Your task to perform on an android device: toggle notifications settings in the gmail app Image 0: 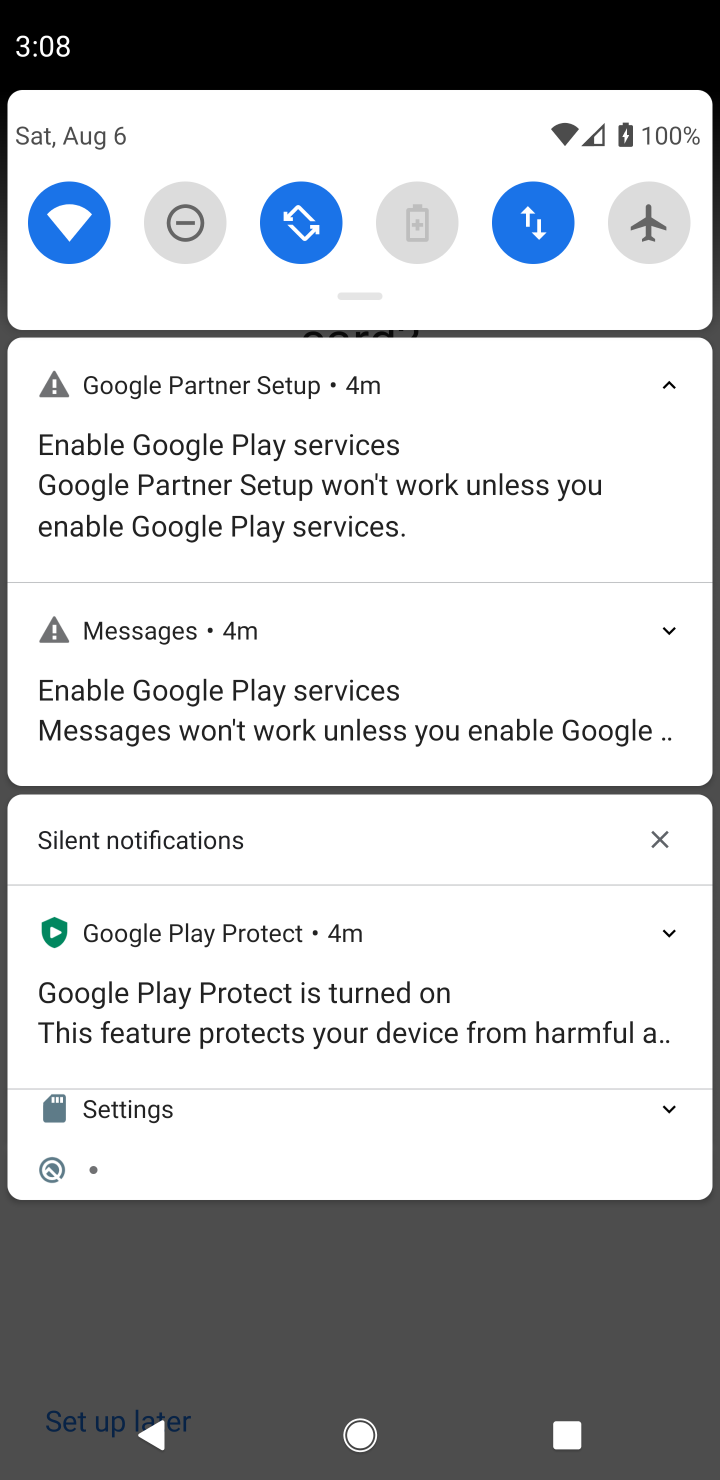
Step 0: click (547, 1353)
Your task to perform on an android device: toggle notifications settings in the gmail app Image 1: 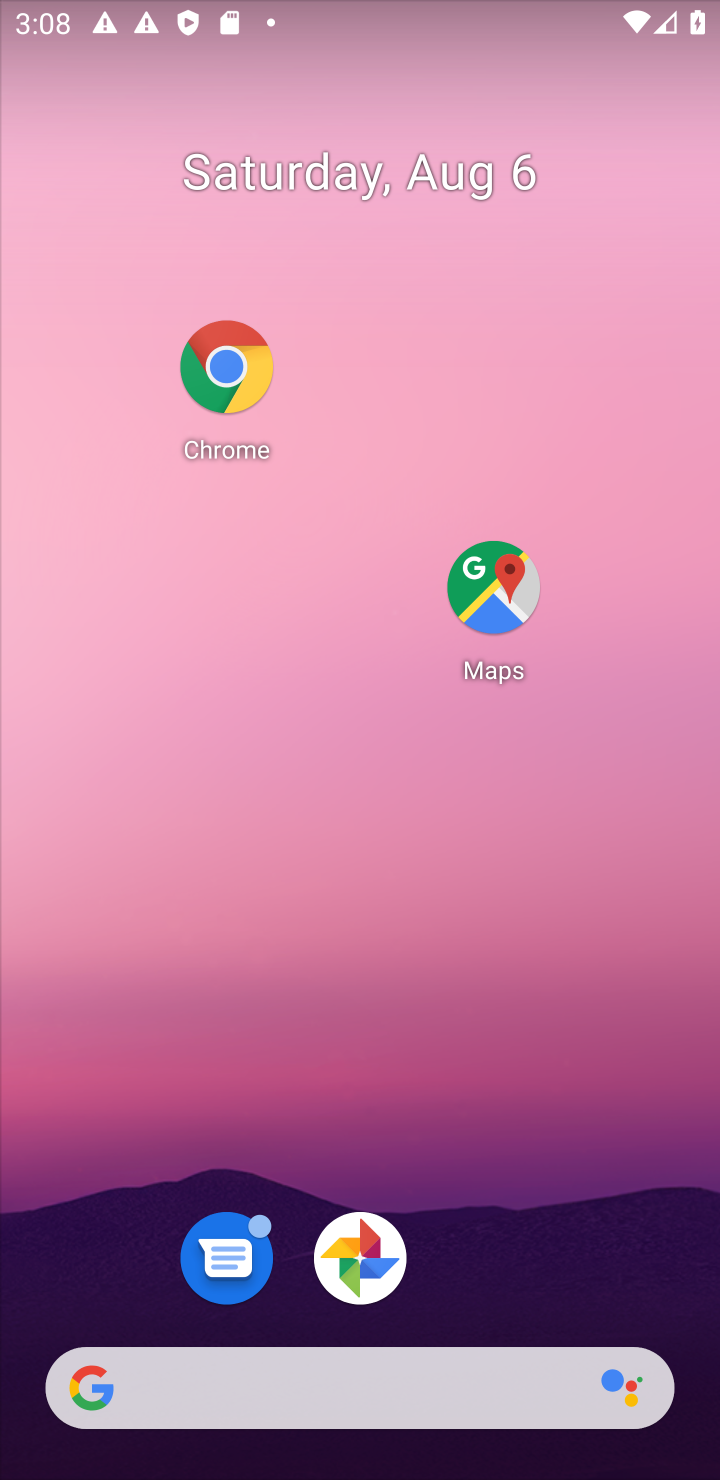
Step 1: press back button
Your task to perform on an android device: toggle notifications settings in the gmail app Image 2: 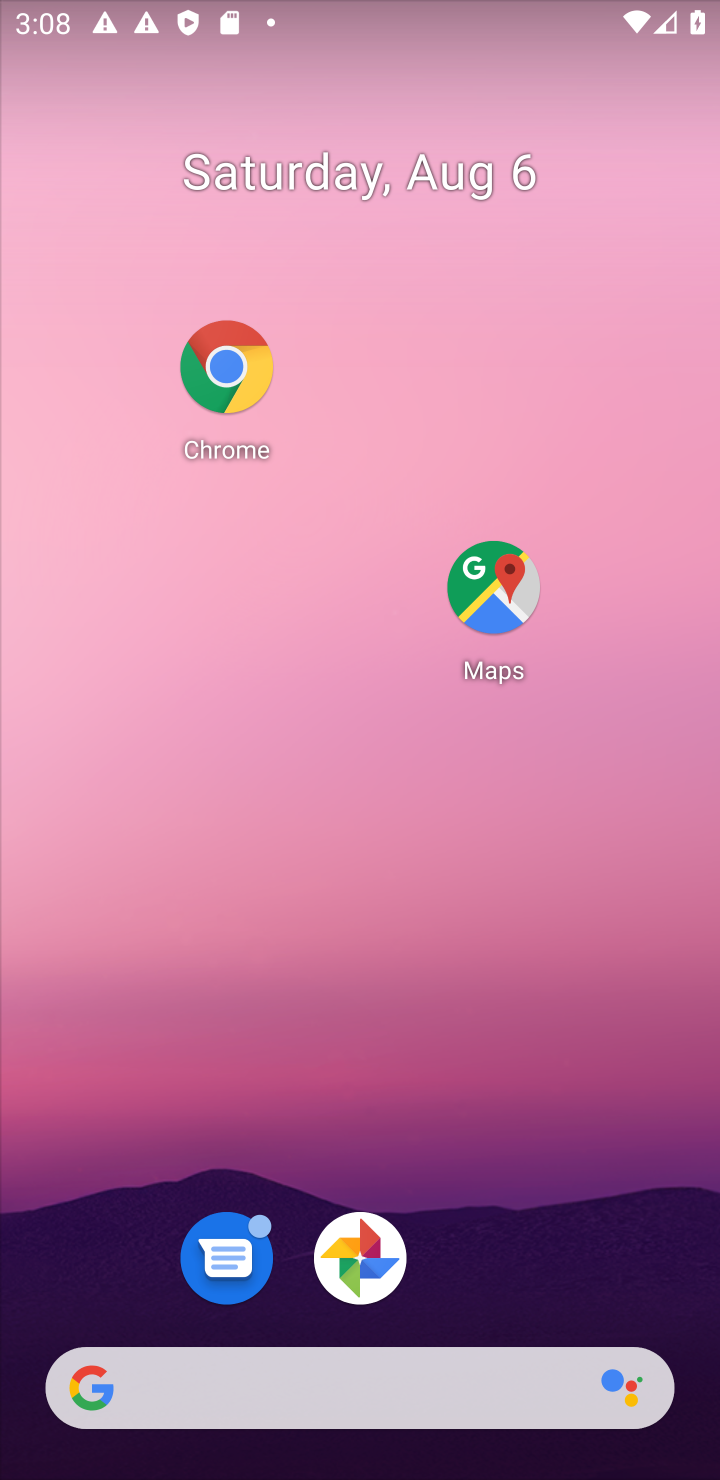
Step 2: click (176, 263)
Your task to perform on an android device: toggle notifications settings in the gmail app Image 3: 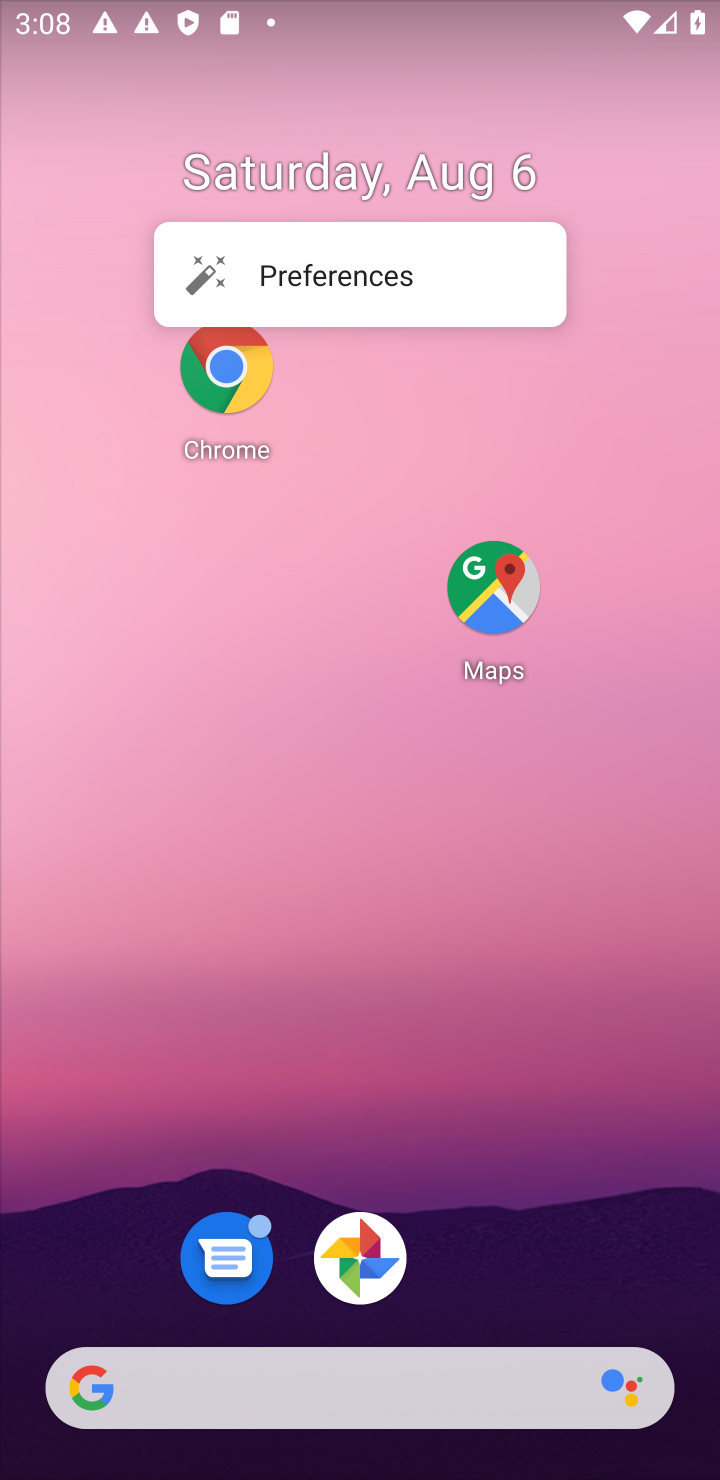
Step 3: task complete